Your task to perform on an android device: set the stopwatch Image 0: 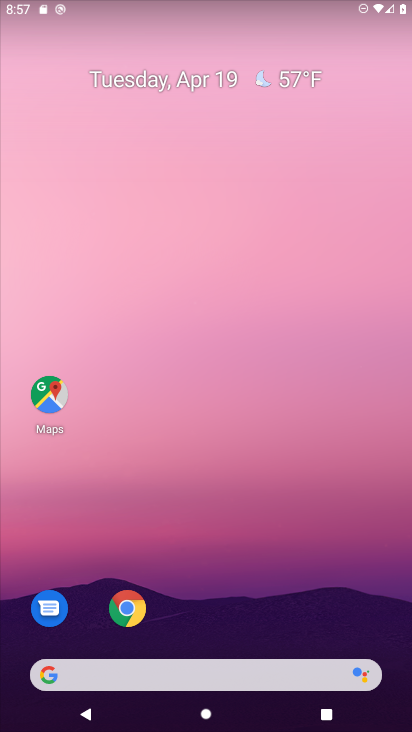
Step 0: drag from (245, 590) to (215, 123)
Your task to perform on an android device: set the stopwatch Image 1: 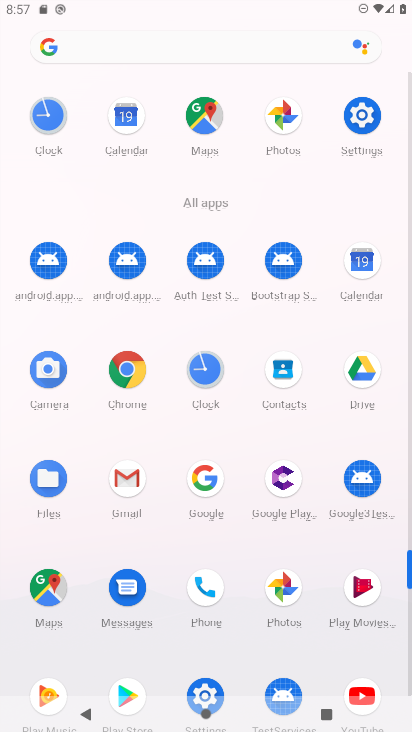
Step 1: click (206, 369)
Your task to perform on an android device: set the stopwatch Image 2: 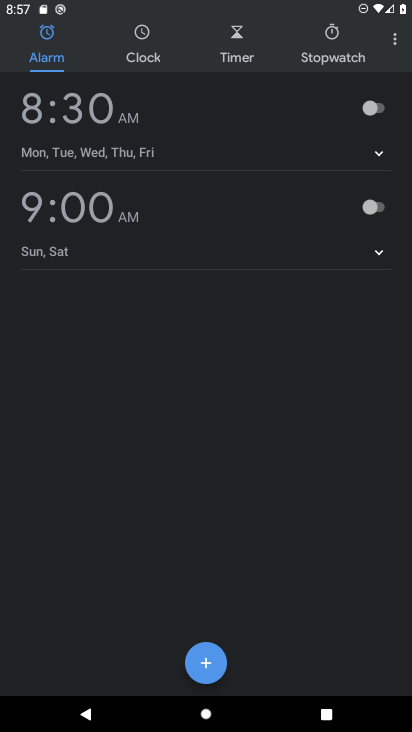
Step 2: click (326, 53)
Your task to perform on an android device: set the stopwatch Image 3: 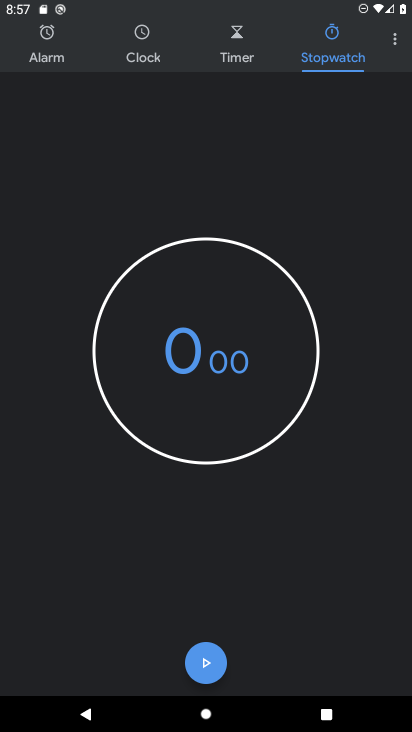
Step 3: click (207, 670)
Your task to perform on an android device: set the stopwatch Image 4: 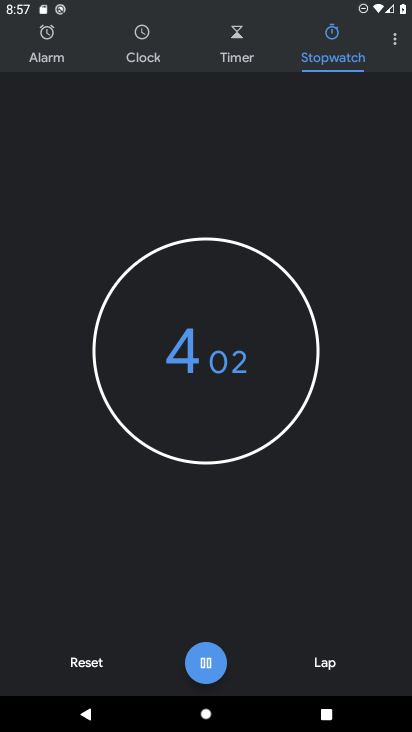
Step 4: click (209, 662)
Your task to perform on an android device: set the stopwatch Image 5: 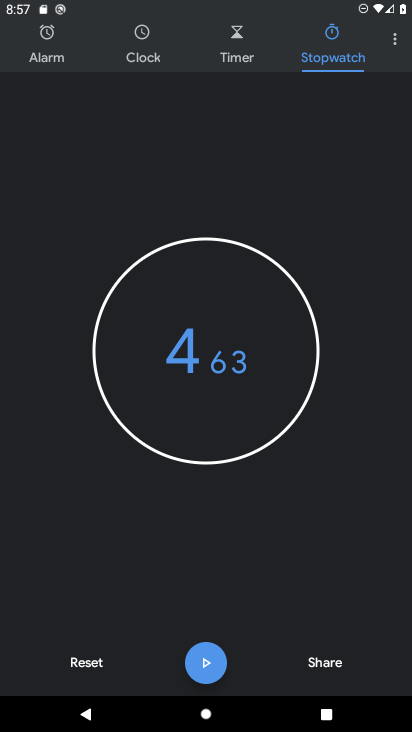
Step 5: task complete